Your task to perform on an android device: Open wifi settings Image 0: 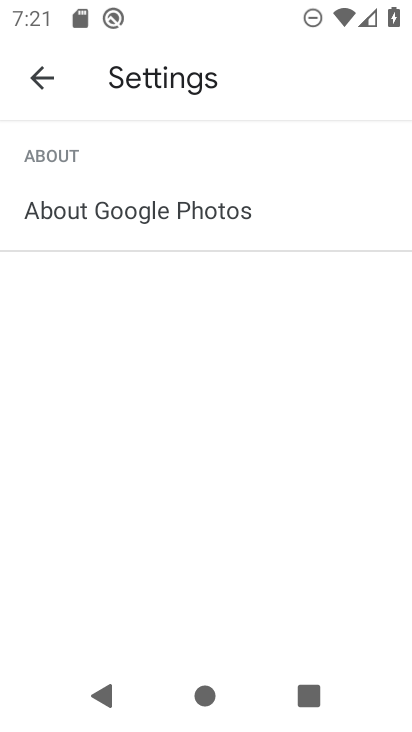
Step 0: press home button
Your task to perform on an android device: Open wifi settings Image 1: 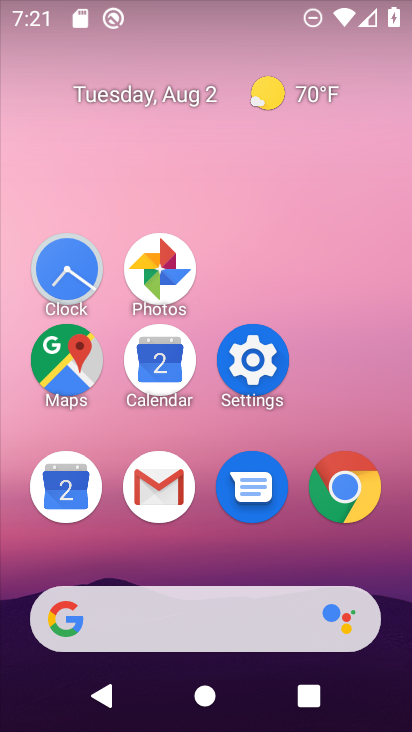
Step 1: click (252, 364)
Your task to perform on an android device: Open wifi settings Image 2: 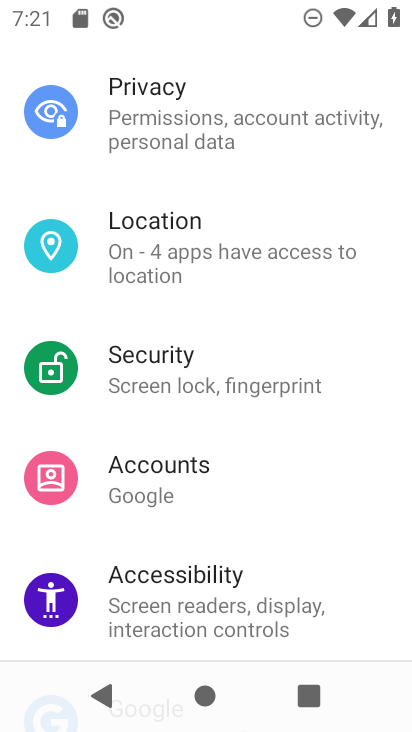
Step 2: drag from (231, 178) to (241, 680)
Your task to perform on an android device: Open wifi settings Image 3: 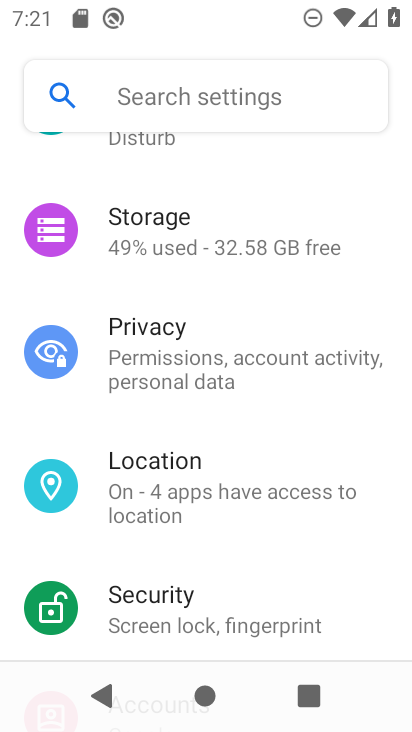
Step 3: drag from (253, 185) to (310, 588)
Your task to perform on an android device: Open wifi settings Image 4: 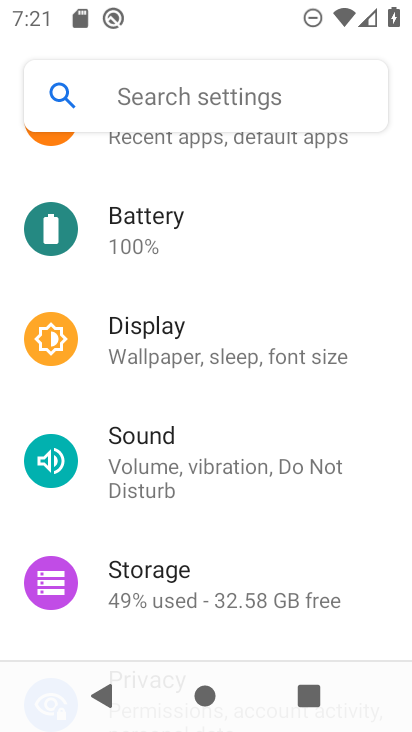
Step 4: drag from (233, 260) to (265, 591)
Your task to perform on an android device: Open wifi settings Image 5: 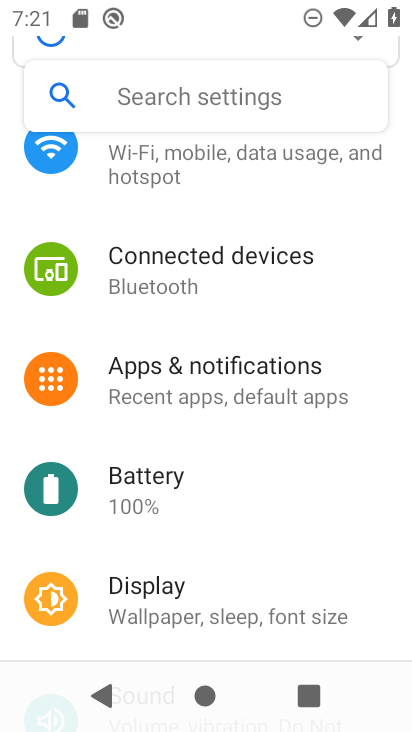
Step 5: click (144, 151)
Your task to perform on an android device: Open wifi settings Image 6: 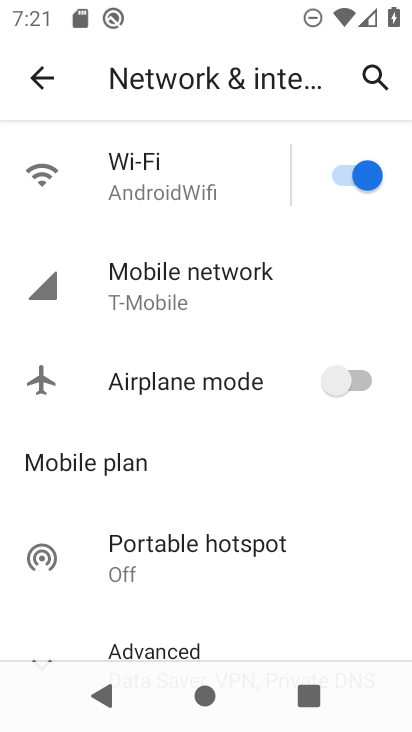
Step 6: click (157, 169)
Your task to perform on an android device: Open wifi settings Image 7: 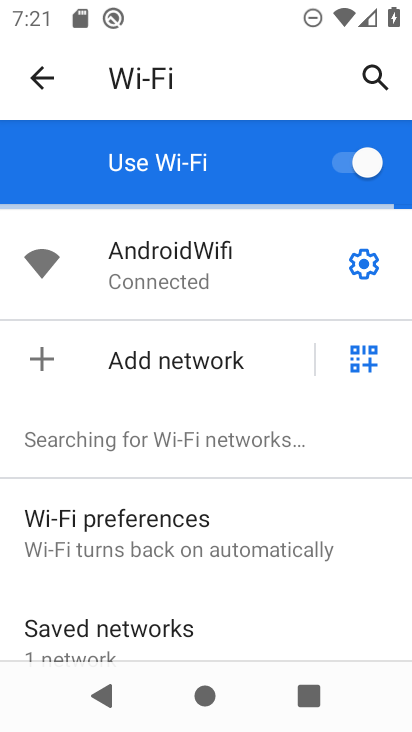
Step 7: task complete